Your task to perform on an android device: turn off notifications in google photos Image 0: 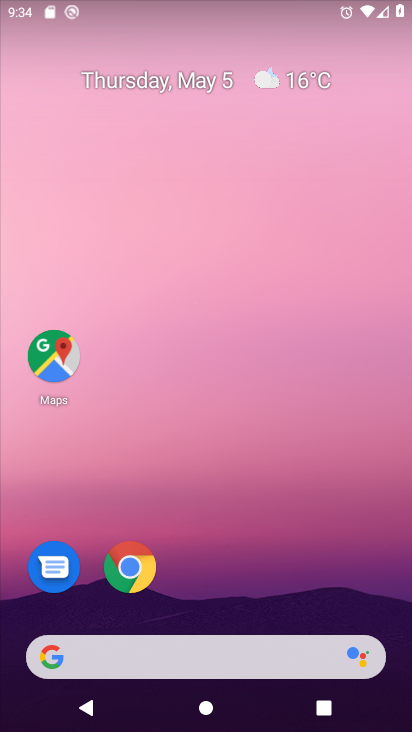
Step 0: drag from (249, 558) to (239, 35)
Your task to perform on an android device: turn off notifications in google photos Image 1: 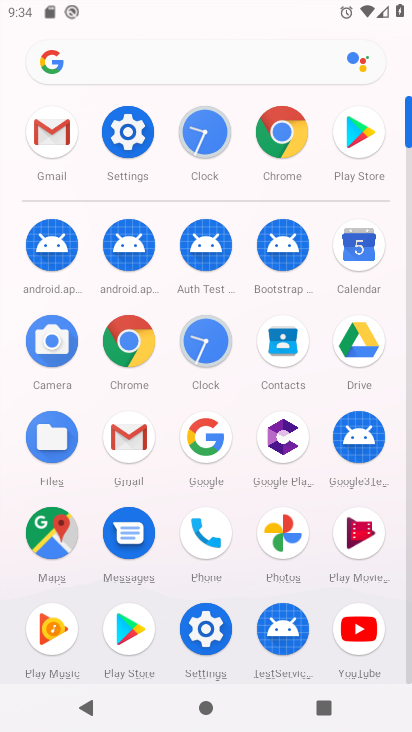
Step 1: click (128, 130)
Your task to perform on an android device: turn off notifications in google photos Image 2: 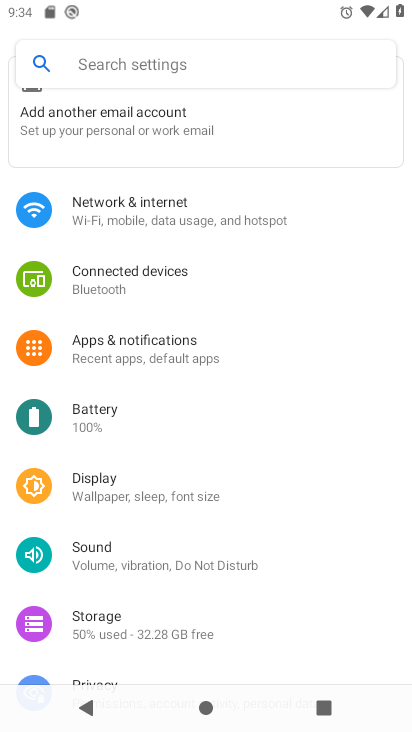
Step 2: click (166, 350)
Your task to perform on an android device: turn off notifications in google photos Image 3: 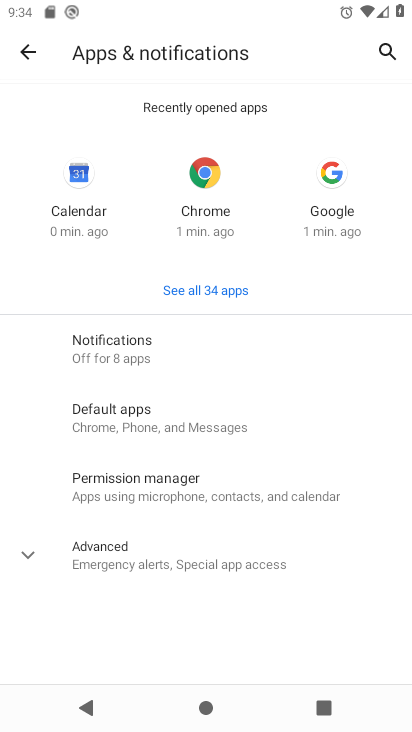
Step 3: click (226, 290)
Your task to perform on an android device: turn off notifications in google photos Image 4: 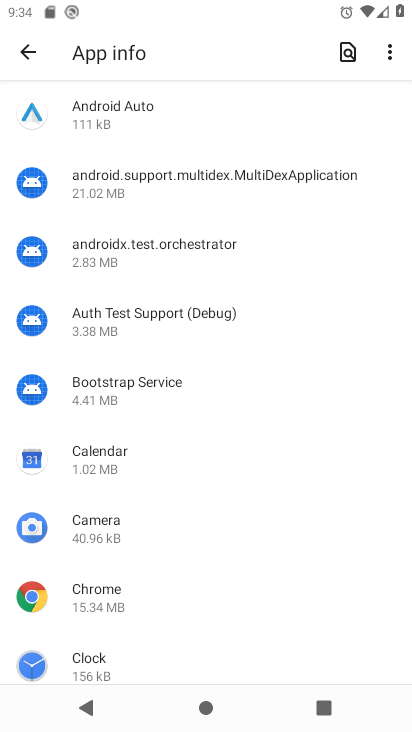
Step 4: drag from (217, 620) to (280, 72)
Your task to perform on an android device: turn off notifications in google photos Image 5: 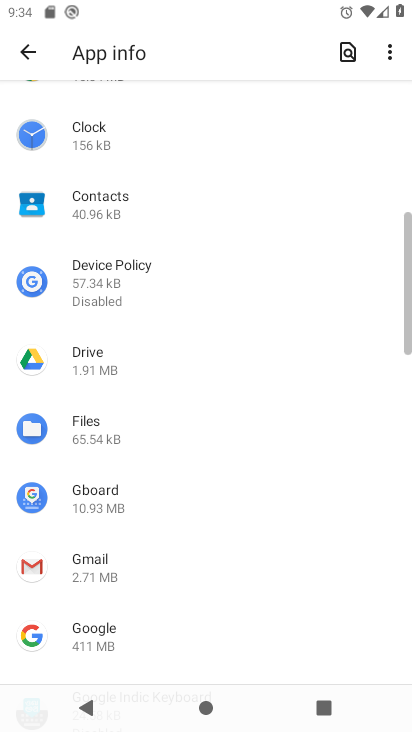
Step 5: drag from (202, 443) to (220, 62)
Your task to perform on an android device: turn off notifications in google photos Image 6: 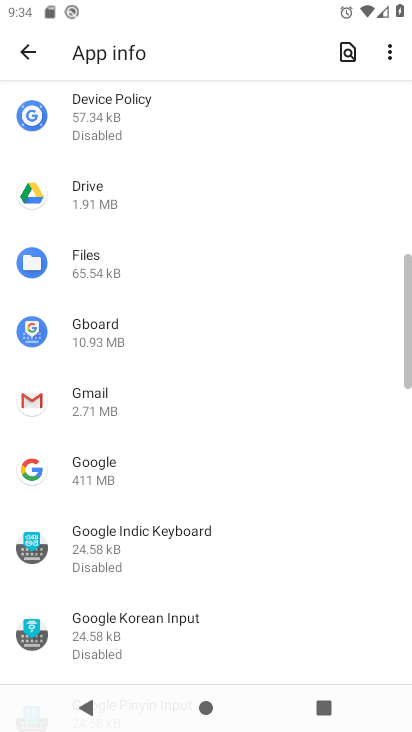
Step 6: drag from (231, 640) to (260, 65)
Your task to perform on an android device: turn off notifications in google photos Image 7: 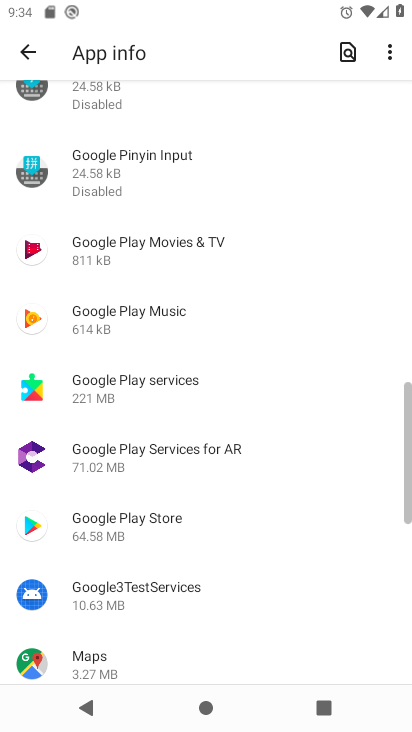
Step 7: drag from (217, 622) to (239, 106)
Your task to perform on an android device: turn off notifications in google photos Image 8: 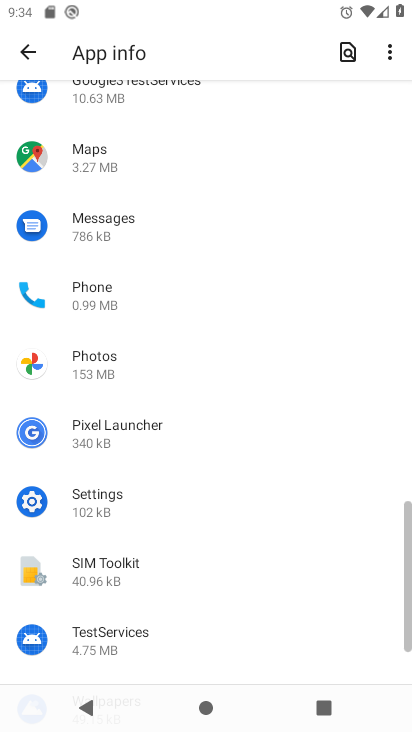
Step 8: click (152, 358)
Your task to perform on an android device: turn off notifications in google photos Image 9: 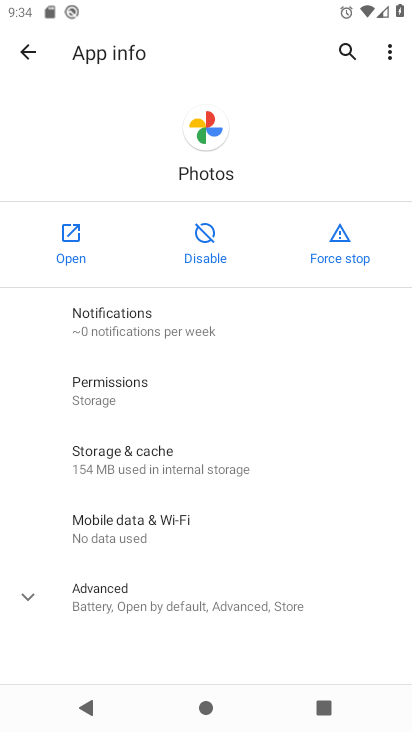
Step 9: click (163, 326)
Your task to perform on an android device: turn off notifications in google photos Image 10: 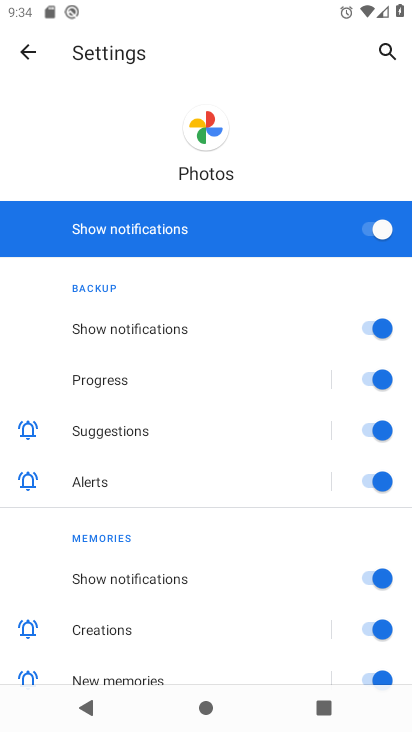
Step 10: click (371, 225)
Your task to perform on an android device: turn off notifications in google photos Image 11: 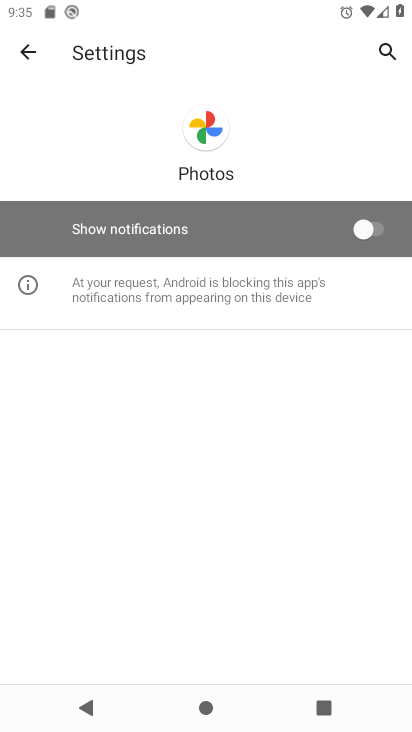
Step 11: task complete